Your task to perform on an android device: snooze an email in the gmail app Image 0: 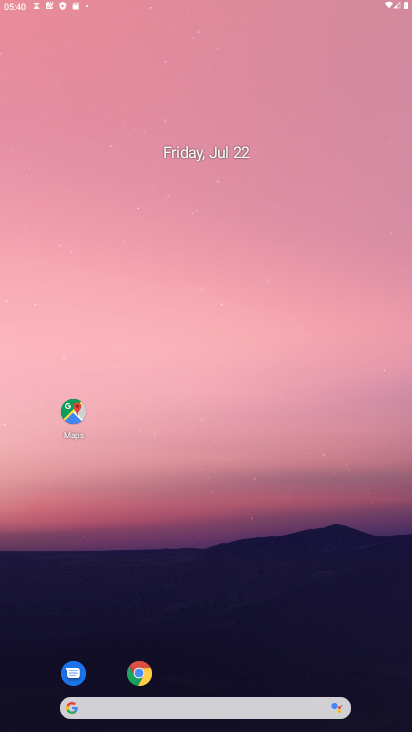
Step 0: press home button
Your task to perform on an android device: snooze an email in the gmail app Image 1: 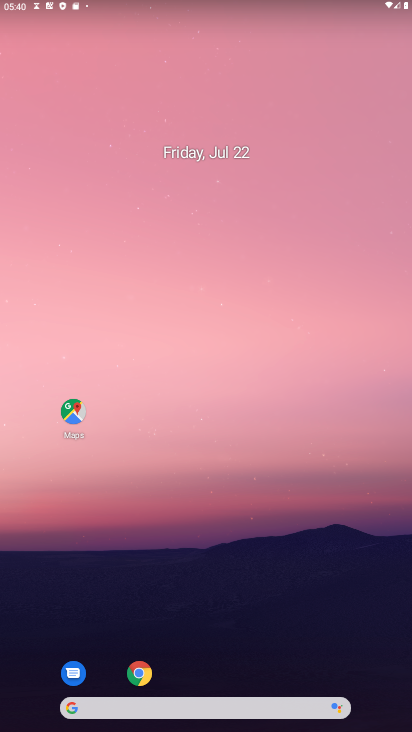
Step 1: drag from (263, 659) to (293, 68)
Your task to perform on an android device: snooze an email in the gmail app Image 2: 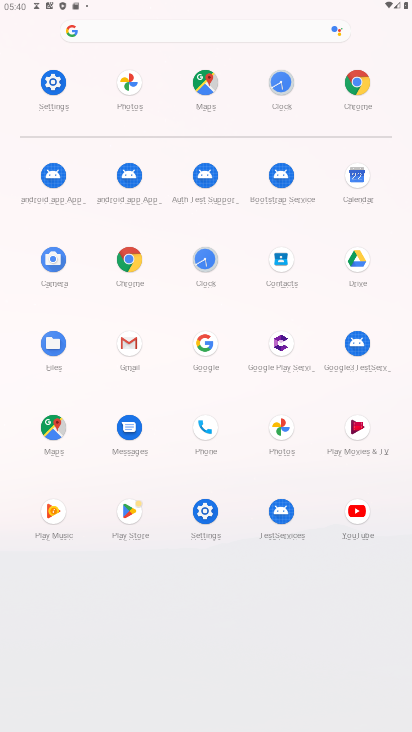
Step 2: click (126, 346)
Your task to perform on an android device: snooze an email in the gmail app Image 3: 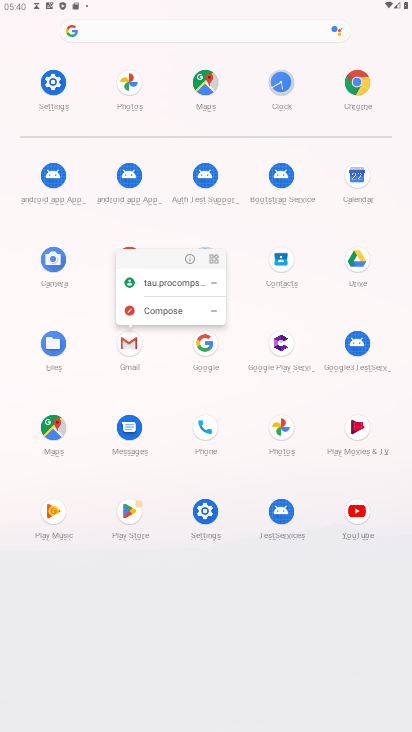
Step 3: click (126, 346)
Your task to perform on an android device: snooze an email in the gmail app Image 4: 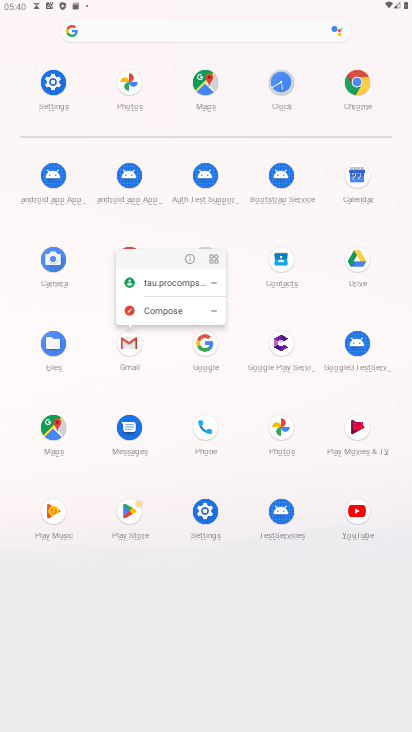
Step 4: click (126, 346)
Your task to perform on an android device: snooze an email in the gmail app Image 5: 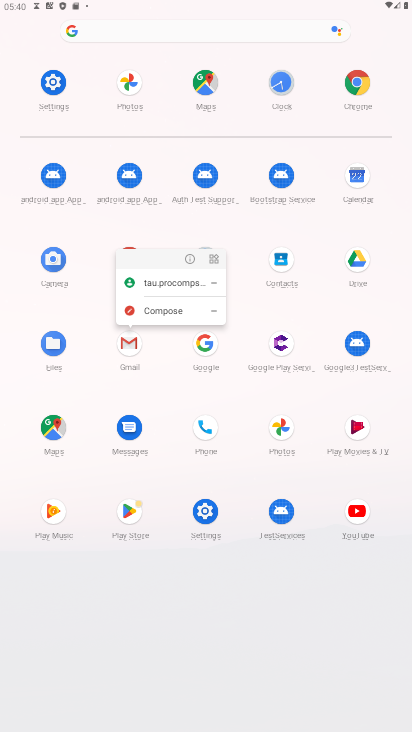
Step 5: click (133, 346)
Your task to perform on an android device: snooze an email in the gmail app Image 6: 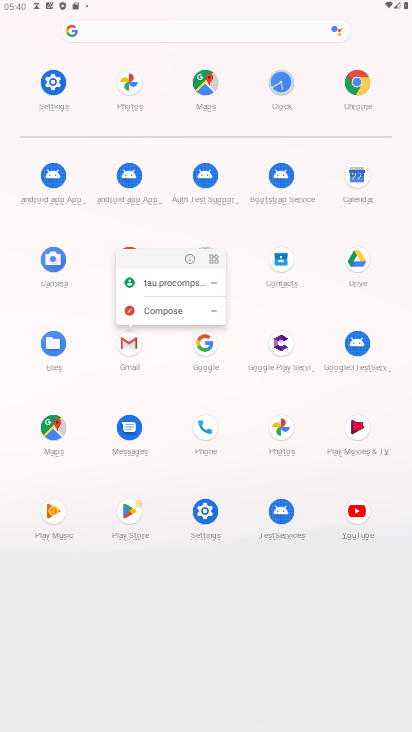
Step 6: click (131, 352)
Your task to perform on an android device: snooze an email in the gmail app Image 7: 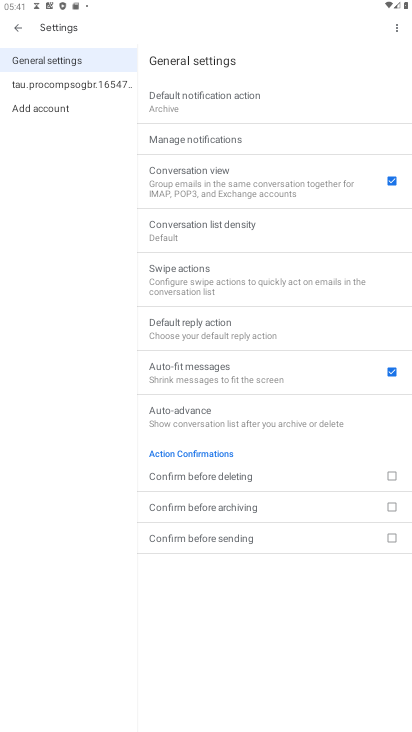
Step 7: click (22, 23)
Your task to perform on an android device: snooze an email in the gmail app Image 8: 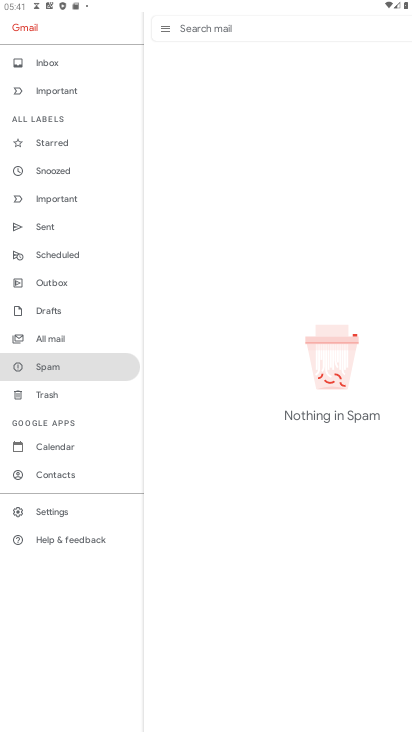
Step 8: click (45, 340)
Your task to perform on an android device: snooze an email in the gmail app Image 9: 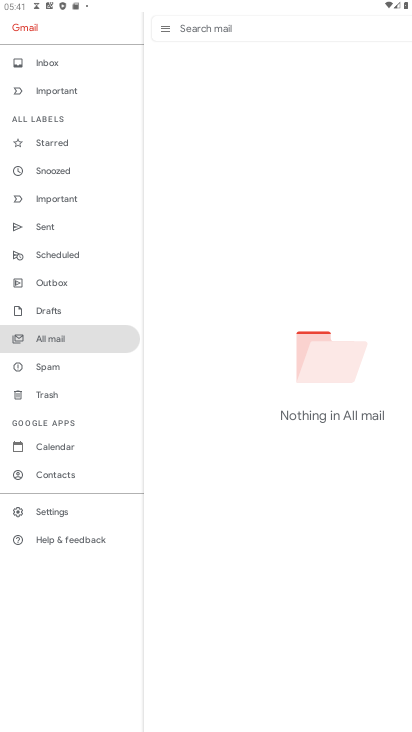
Step 9: task complete